Your task to perform on an android device: allow notifications from all sites in the chrome app Image 0: 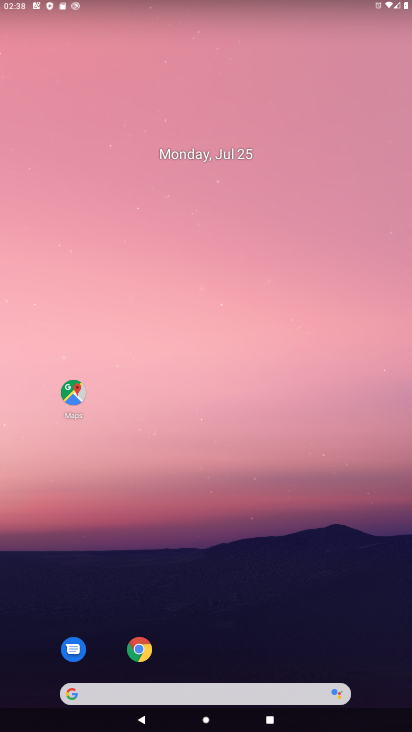
Step 0: click (140, 652)
Your task to perform on an android device: allow notifications from all sites in the chrome app Image 1: 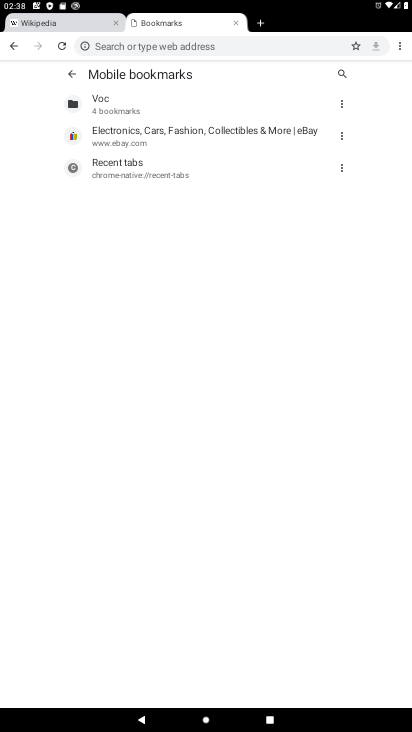
Step 1: click (400, 48)
Your task to perform on an android device: allow notifications from all sites in the chrome app Image 2: 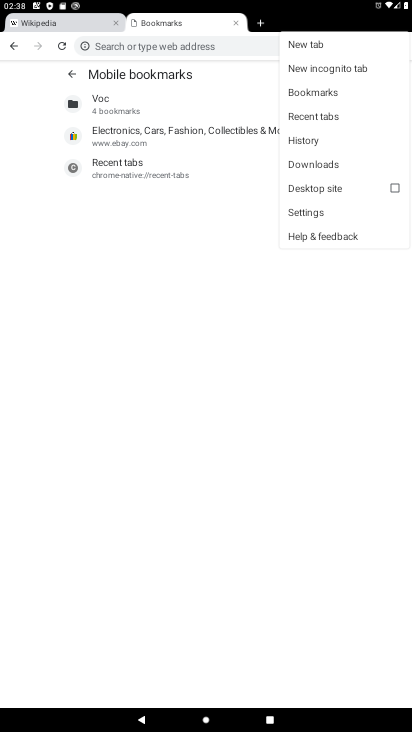
Step 2: click (308, 209)
Your task to perform on an android device: allow notifications from all sites in the chrome app Image 3: 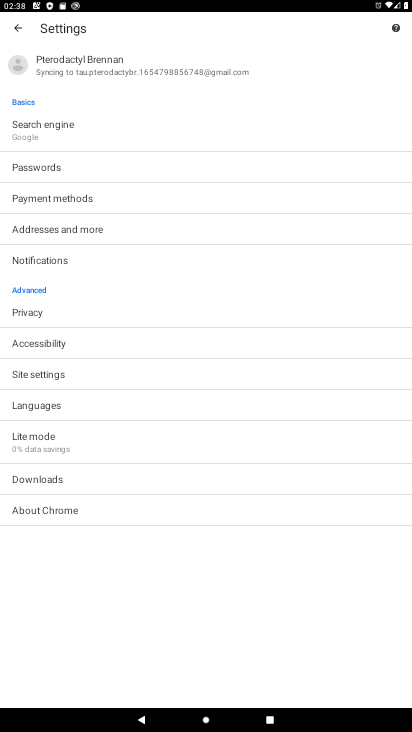
Step 3: click (28, 370)
Your task to perform on an android device: allow notifications from all sites in the chrome app Image 4: 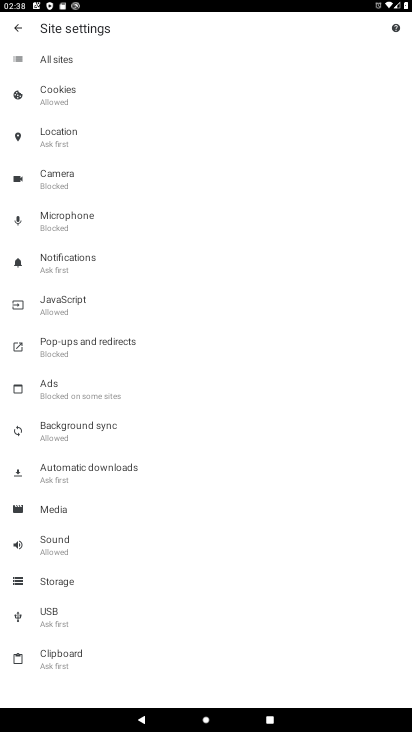
Step 4: click (52, 255)
Your task to perform on an android device: allow notifications from all sites in the chrome app Image 5: 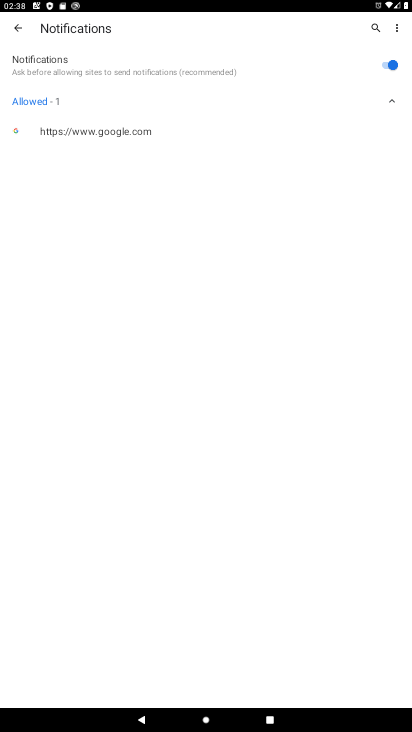
Step 5: task complete